Your task to perform on an android device: Search for Mexican restaurants on Maps Image 0: 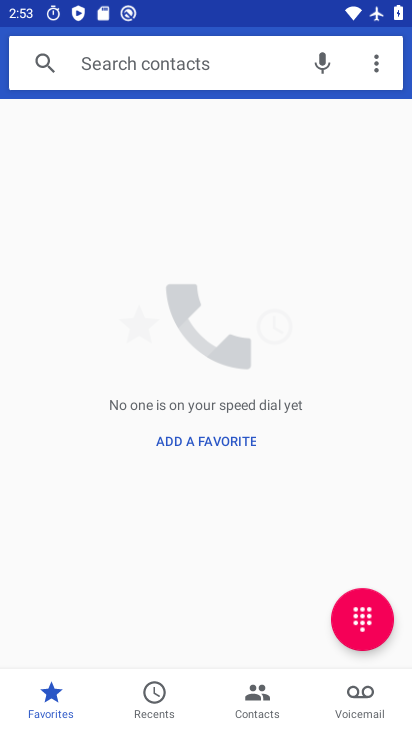
Step 0: press back button
Your task to perform on an android device: Search for Mexican restaurants on Maps Image 1: 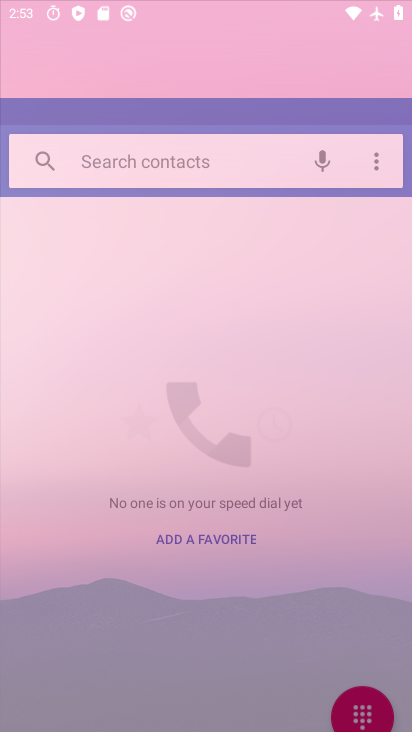
Step 1: press back button
Your task to perform on an android device: Search for Mexican restaurants on Maps Image 2: 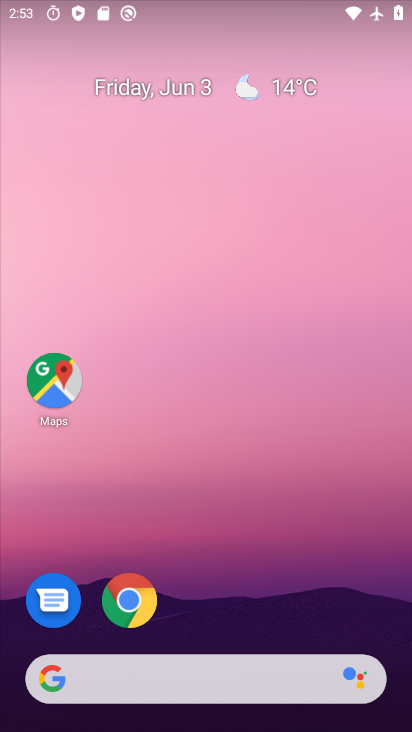
Step 2: drag from (238, 522) to (219, 34)
Your task to perform on an android device: Search for Mexican restaurants on Maps Image 3: 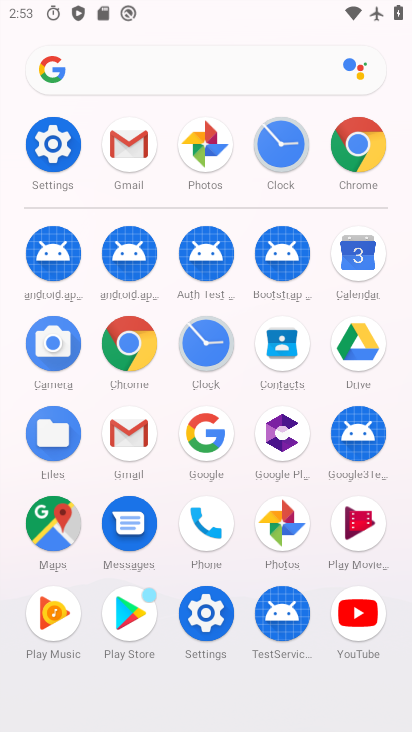
Step 3: click (52, 525)
Your task to perform on an android device: Search for Mexican restaurants on Maps Image 4: 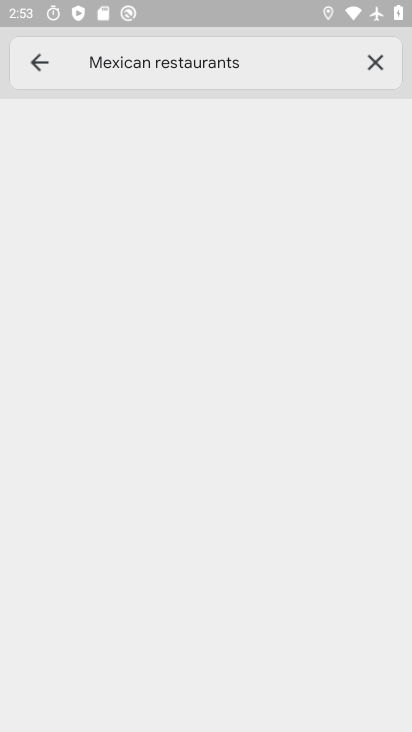
Step 4: drag from (271, 268) to (285, 620)
Your task to perform on an android device: Search for Mexican restaurants on Maps Image 5: 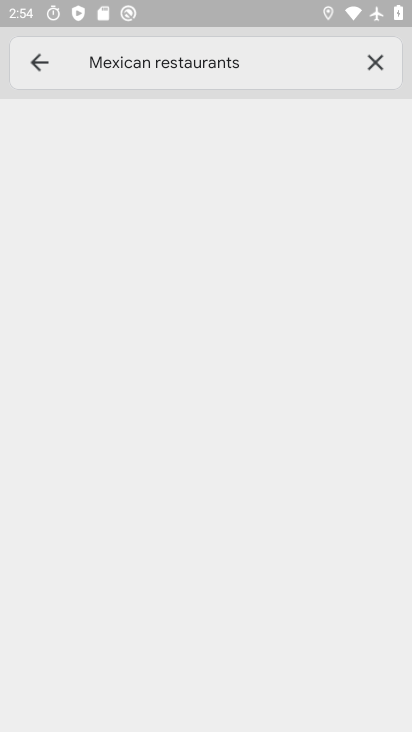
Step 5: click (368, 57)
Your task to perform on an android device: Search for Mexican restaurants on Maps Image 6: 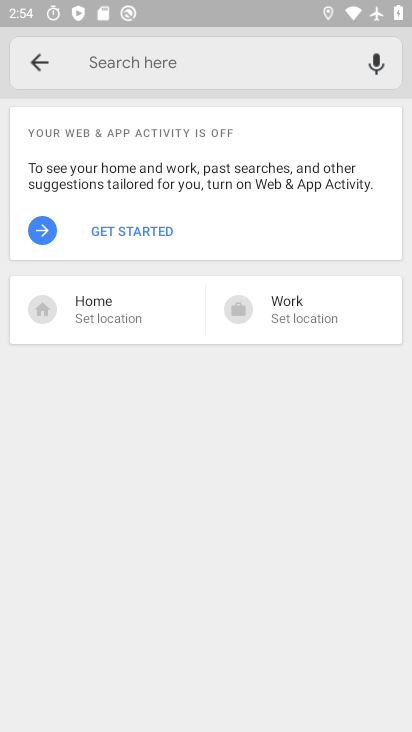
Step 6: click (124, 51)
Your task to perform on an android device: Search for Mexican restaurants on Maps Image 7: 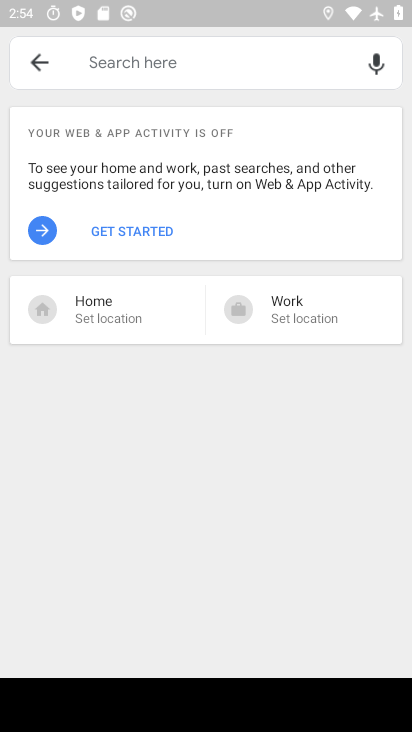
Step 7: type "Mexican restaurants "
Your task to perform on an android device: Search for Mexican restaurants on Maps Image 8: 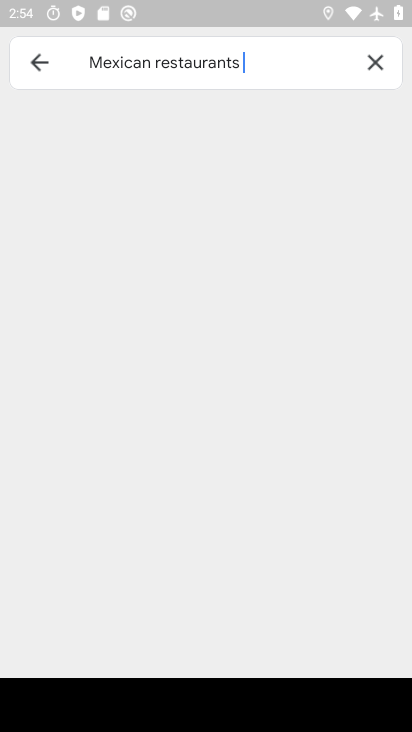
Step 8: task complete